Your task to perform on an android device: Go to Yahoo.com Image 0: 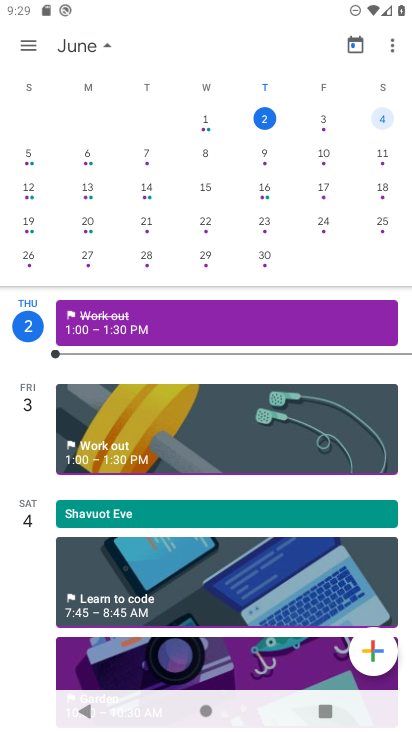
Step 0: press home button
Your task to perform on an android device: Go to Yahoo.com Image 1: 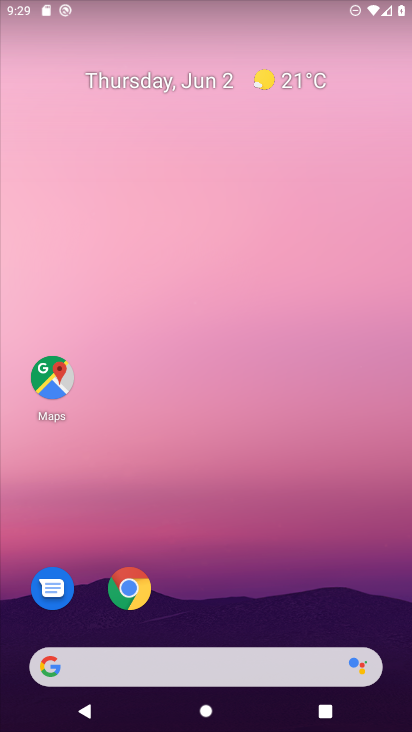
Step 1: drag from (227, 504) to (256, 112)
Your task to perform on an android device: Go to Yahoo.com Image 2: 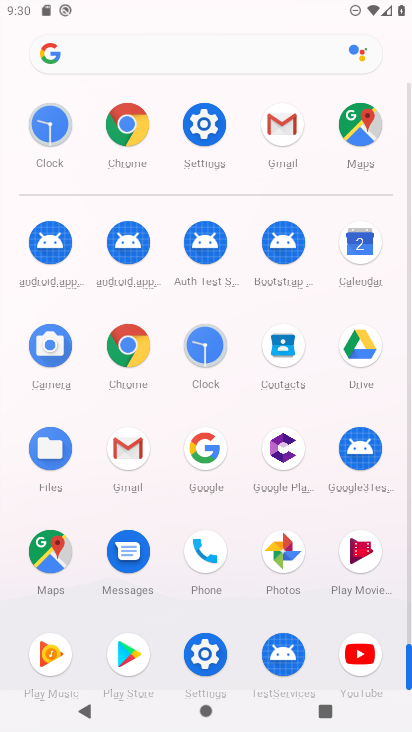
Step 2: click (135, 144)
Your task to perform on an android device: Go to Yahoo.com Image 3: 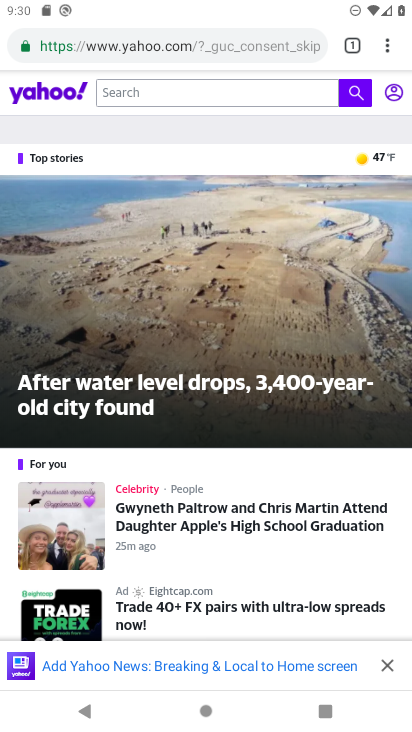
Step 3: task complete